Your task to perform on an android device: Open ESPN.com Image 0: 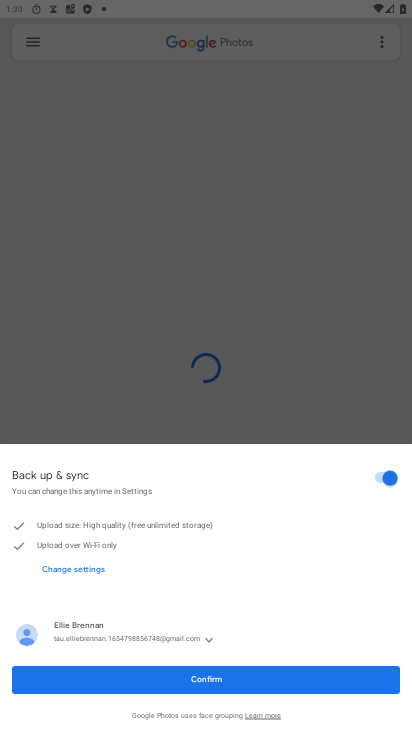
Step 0: press home button
Your task to perform on an android device: Open ESPN.com Image 1: 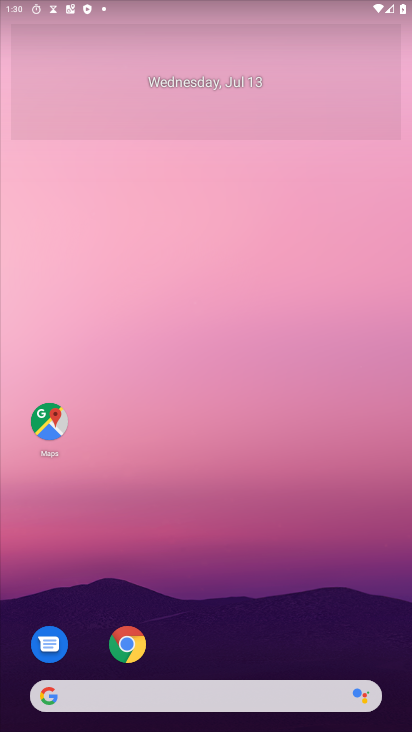
Step 1: click (136, 699)
Your task to perform on an android device: Open ESPN.com Image 2: 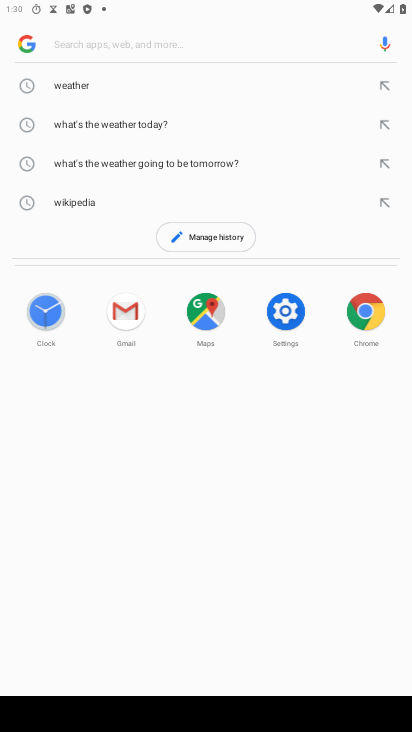
Step 2: type " ESPN.com"
Your task to perform on an android device: Open ESPN.com Image 3: 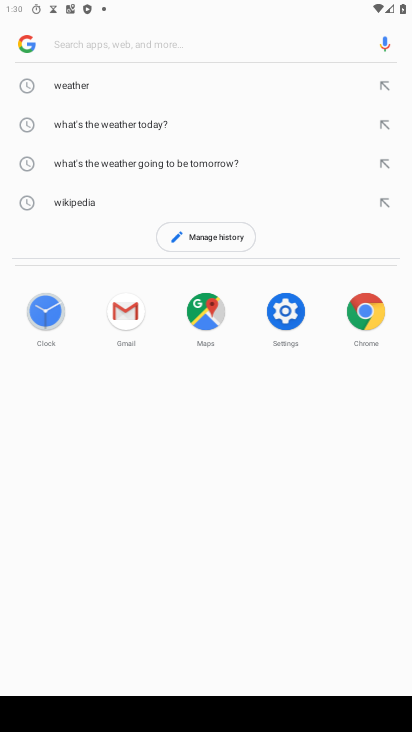
Step 3: click (74, 43)
Your task to perform on an android device: Open ESPN.com Image 4: 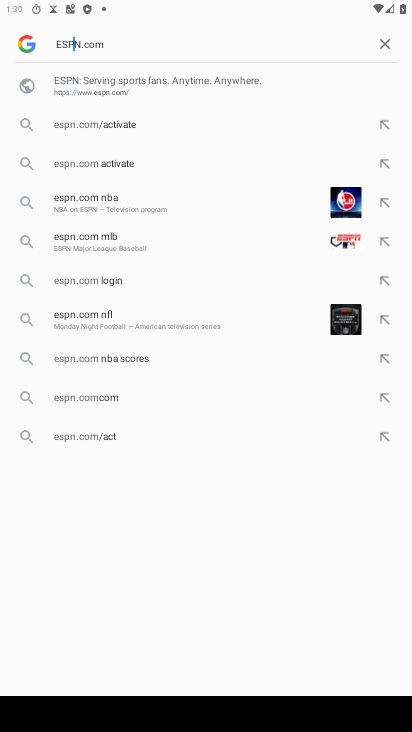
Step 4: press enter
Your task to perform on an android device: Open ESPN.com Image 5: 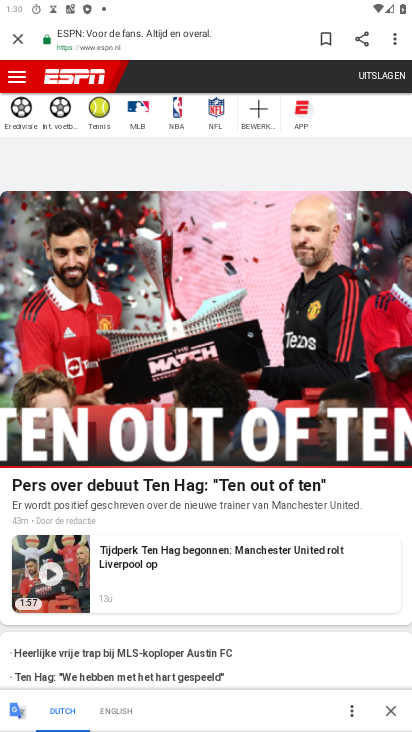
Step 5: task complete